Your task to perform on an android device: stop showing notifications on the lock screen Image 0: 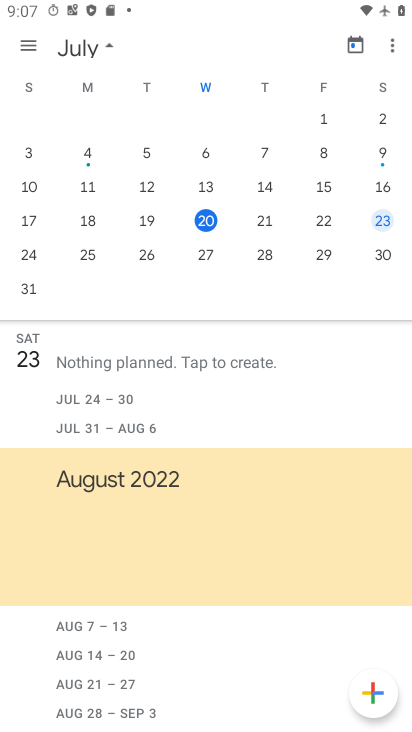
Step 0: press home button
Your task to perform on an android device: stop showing notifications on the lock screen Image 1: 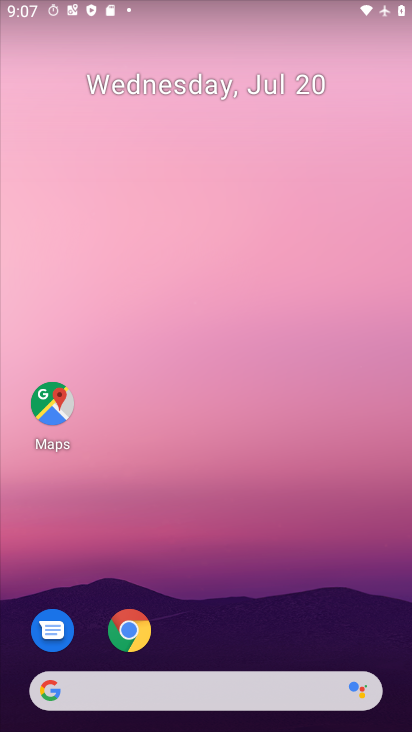
Step 1: drag from (215, 685) to (229, 281)
Your task to perform on an android device: stop showing notifications on the lock screen Image 2: 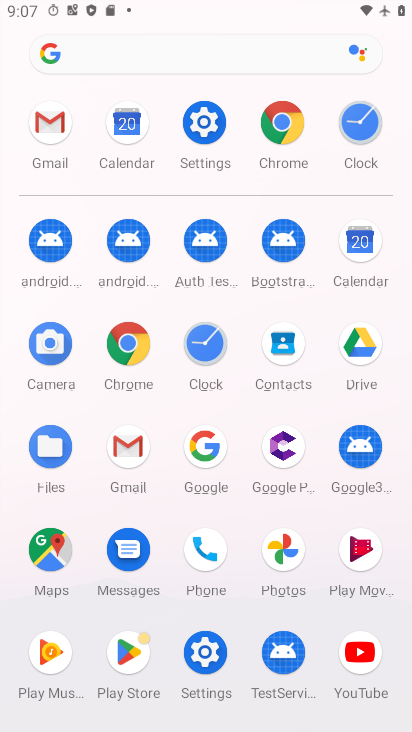
Step 2: click (202, 124)
Your task to perform on an android device: stop showing notifications on the lock screen Image 3: 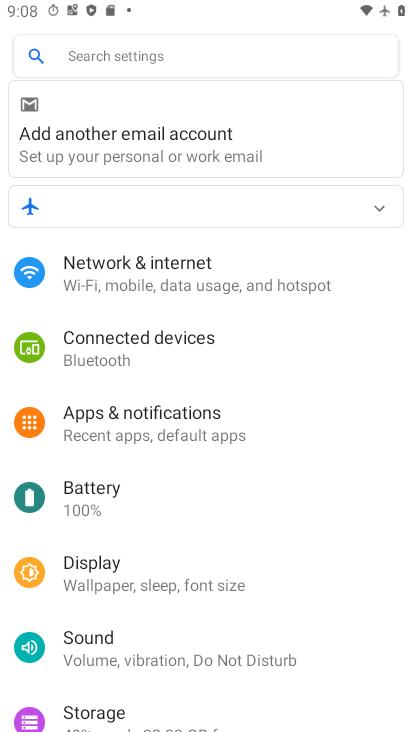
Step 3: click (160, 432)
Your task to perform on an android device: stop showing notifications on the lock screen Image 4: 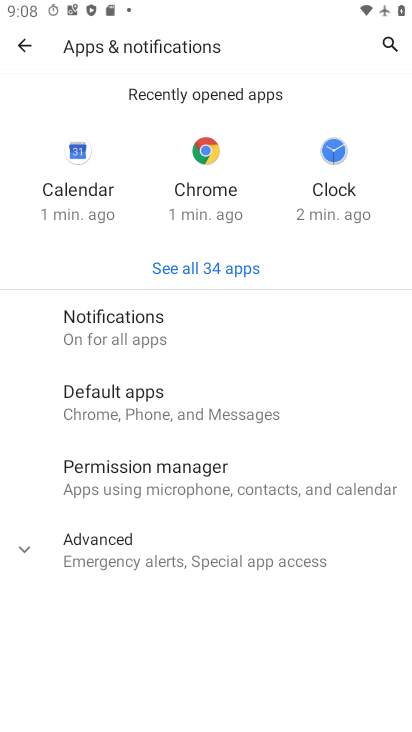
Step 4: click (176, 336)
Your task to perform on an android device: stop showing notifications on the lock screen Image 5: 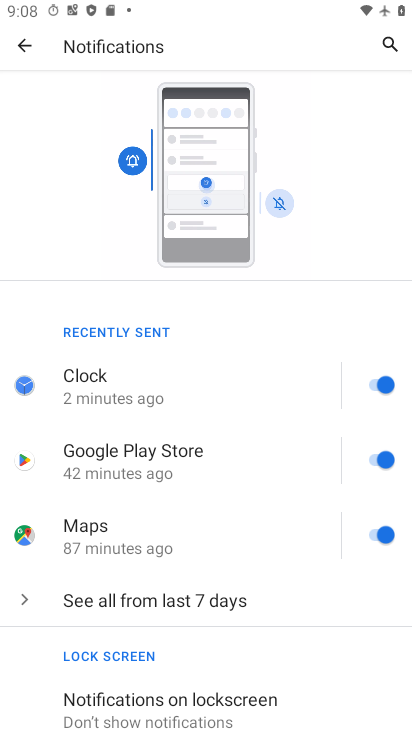
Step 5: drag from (179, 612) to (190, 252)
Your task to perform on an android device: stop showing notifications on the lock screen Image 6: 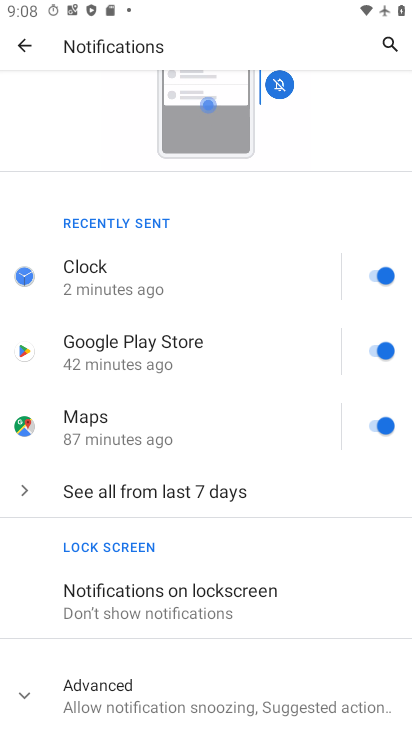
Step 6: click (169, 609)
Your task to perform on an android device: stop showing notifications on the lock screen Image 7: 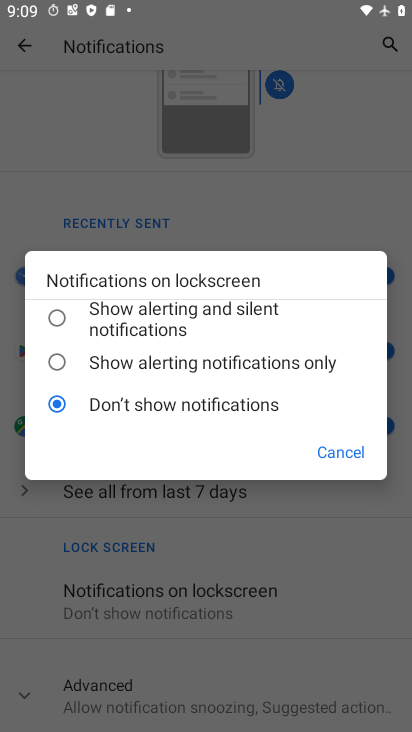
Step 7: task complete